Your task to perform on an android device: turn on sleep mode Image 0: 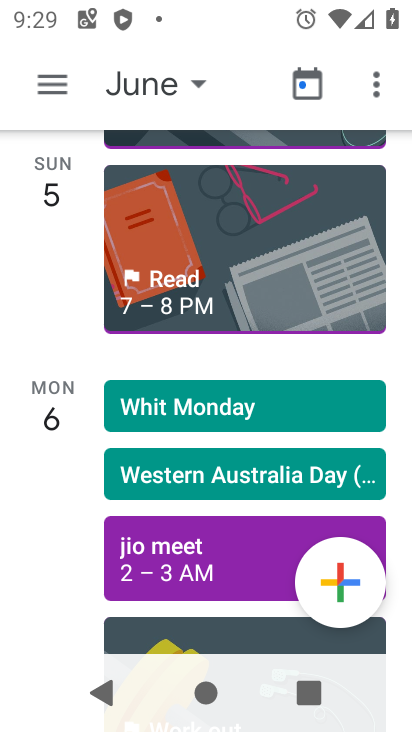
Step 0: press home button
Your task to perform on an android device: turn on sleep mode Image 1: 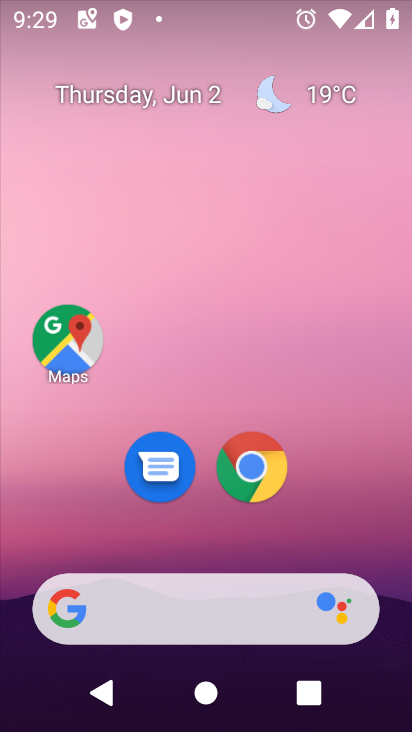
Step 1: drag from (206, 553) to (207, 217)
Your task to perform on an android device: turn on sleep mode Image 2: 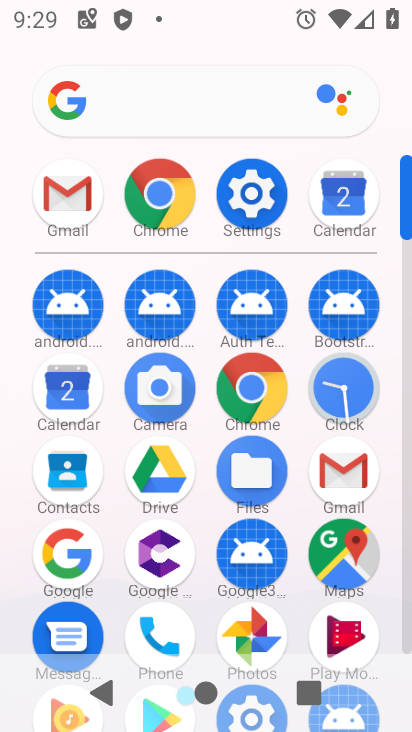
Step 2: click (251, 193)
Your task to perform on an android device: turn on sleep mode Image 3: 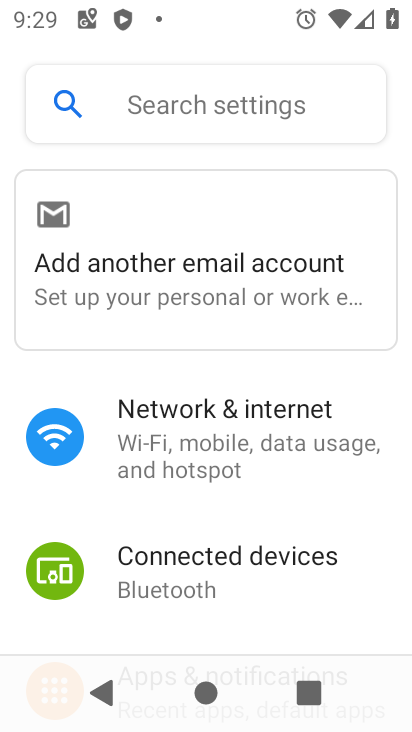
Step 3: task complete